Your task to perform on an android device: check battery use Image 0: 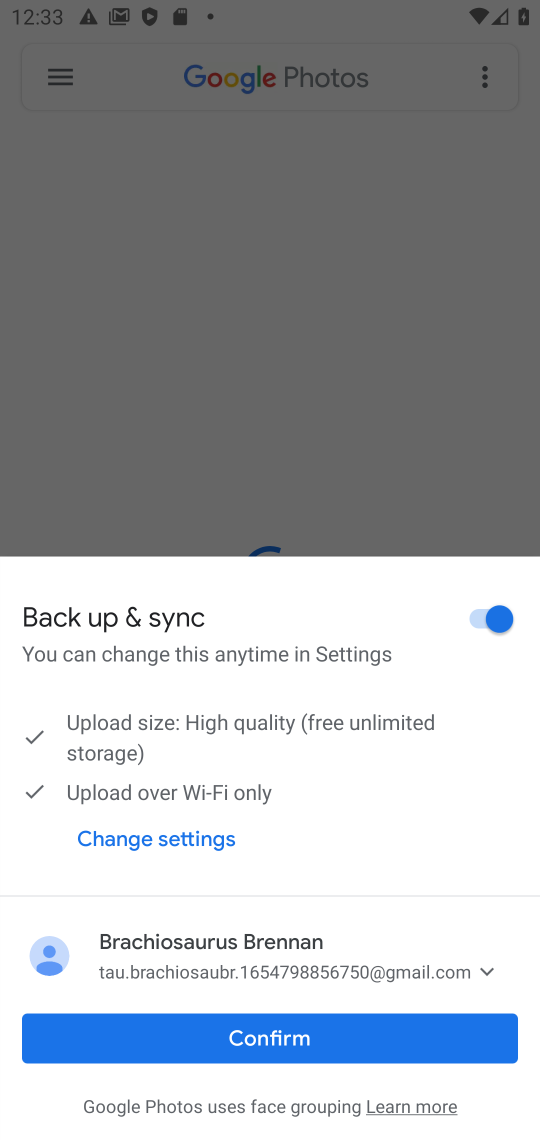
Step 0: press home button
Your task to perform on an android device: check battery use Image 1: 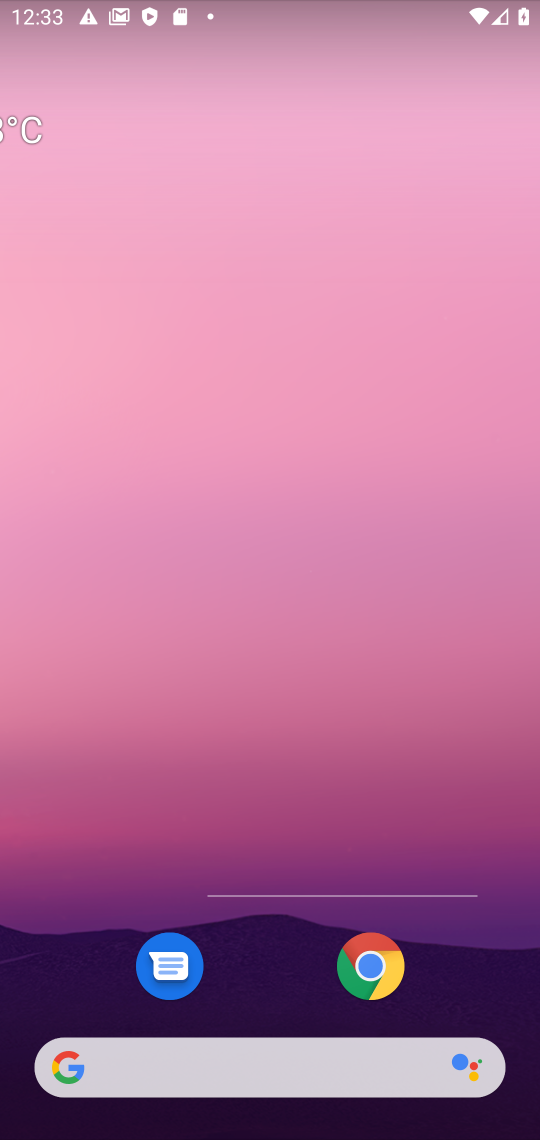
Step 1: drag from (289, 855) to (345, 30)
Your task to perform on an android device: check battery use Image 2: 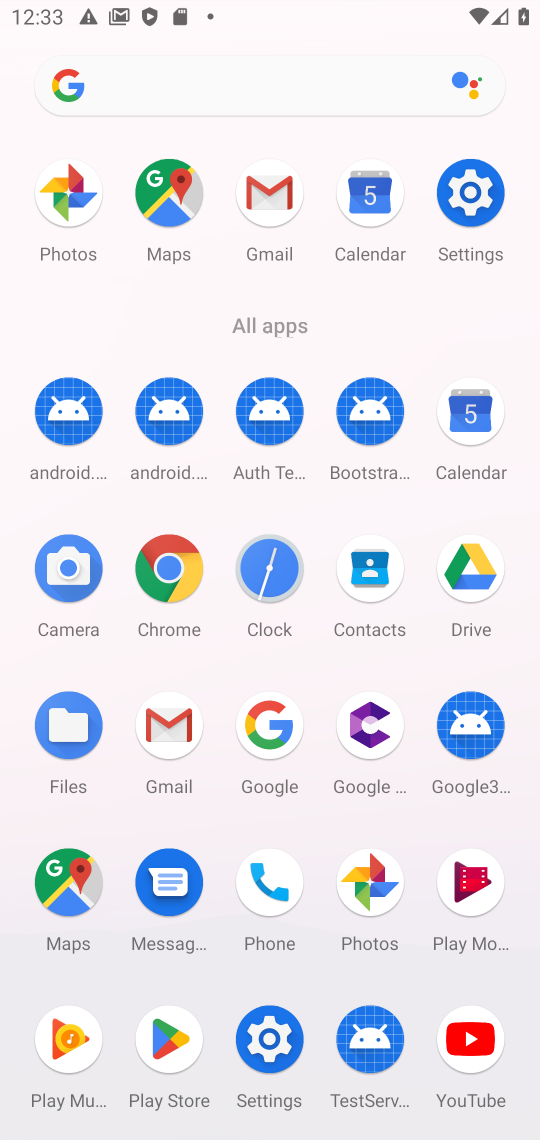
Step 2: click (480, 207)
Your task to perform on an android device: check battery use Image 3: 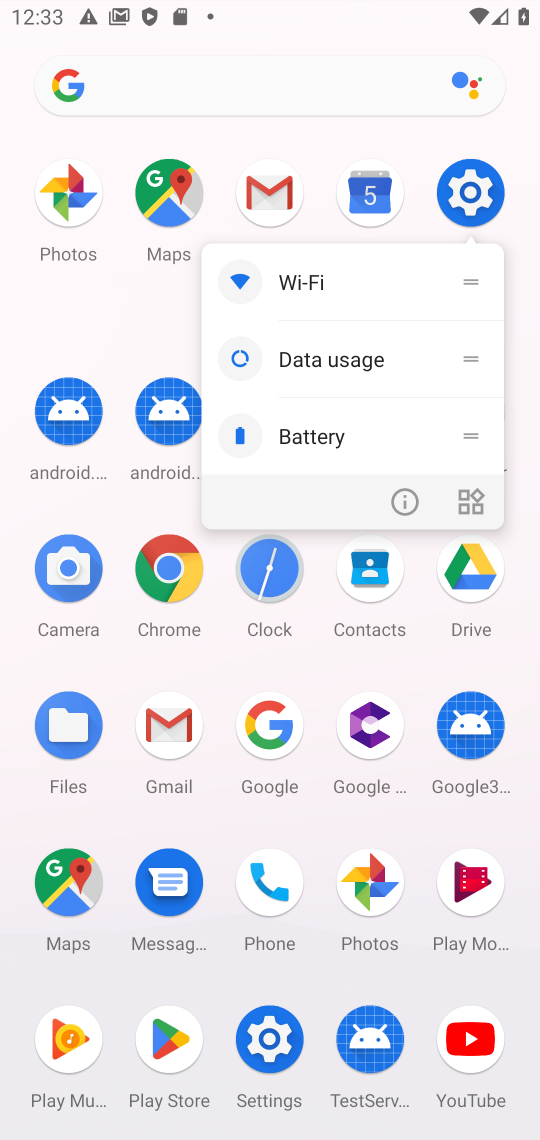
Step 3: click (480, 204)
Your task to perform on an android device: check battery use Image 4: 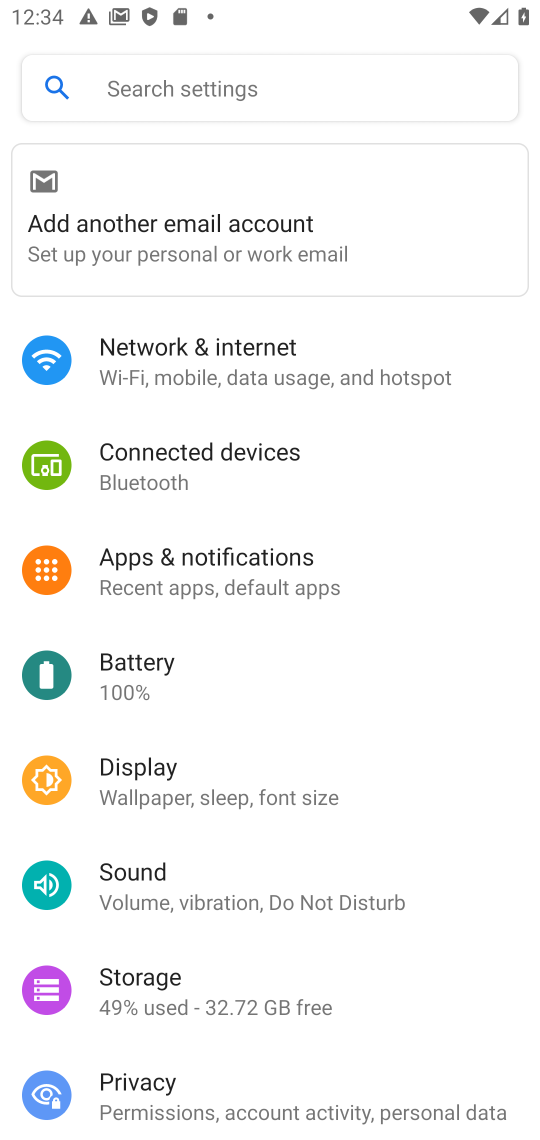
Step 4: click (142, 658)
Your task to perform on an android device: check battery use Image 5: 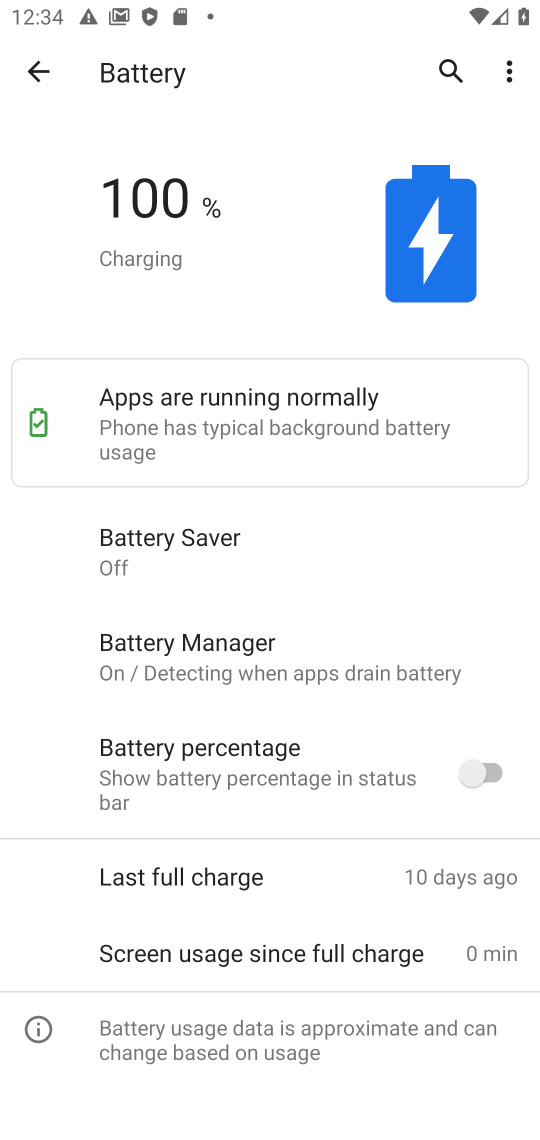
Step 5: click (511, 63)
Your task to perform on an android device: check battery use Image 6: 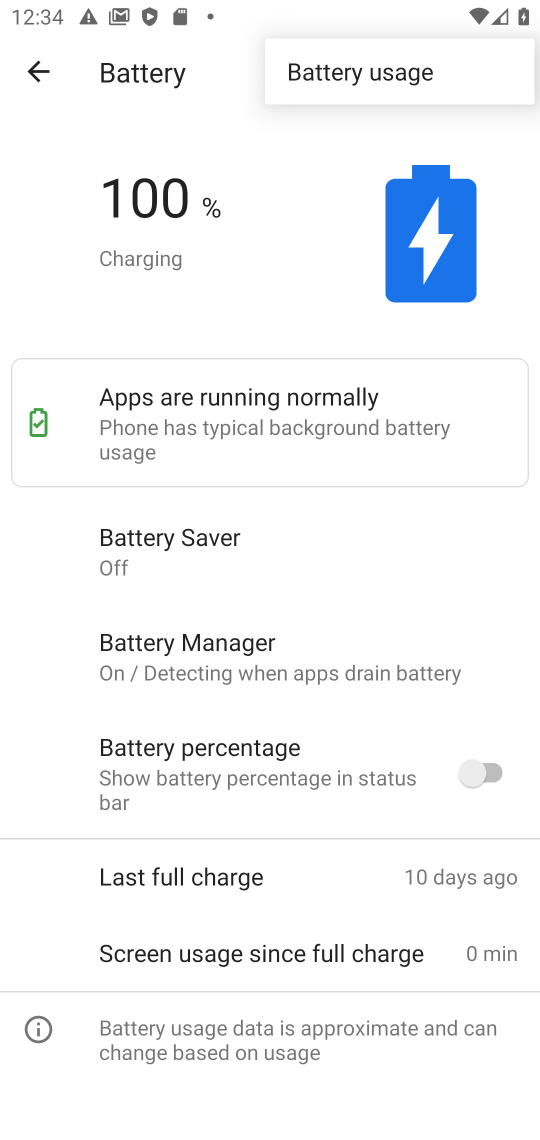
Step 6: click (426, 71)
Your task to perform on an android device: check battery use Image 7: 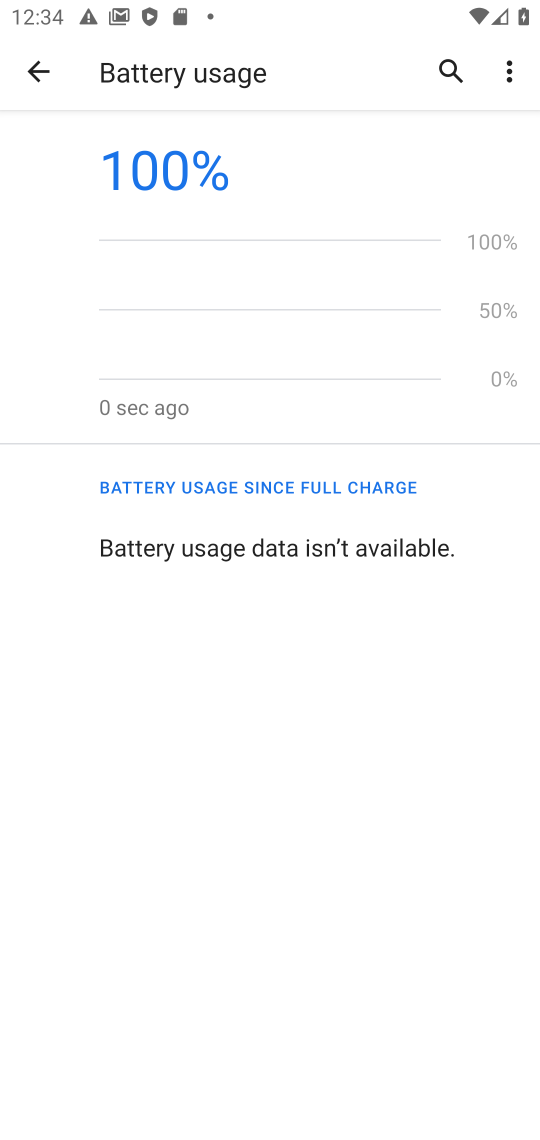
Step 7: task complete